Your task to perform on an android device: Show me the alarms in the clock app Image 0: 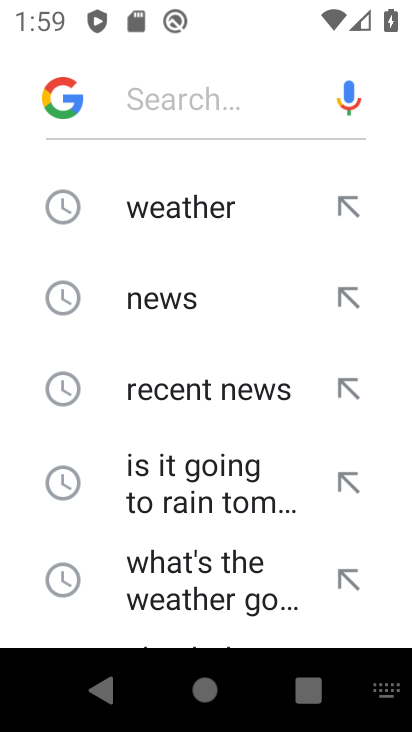
Step 0: press back button
Your task to perform on an android device: Show me the alarms in the clock app Image 1: 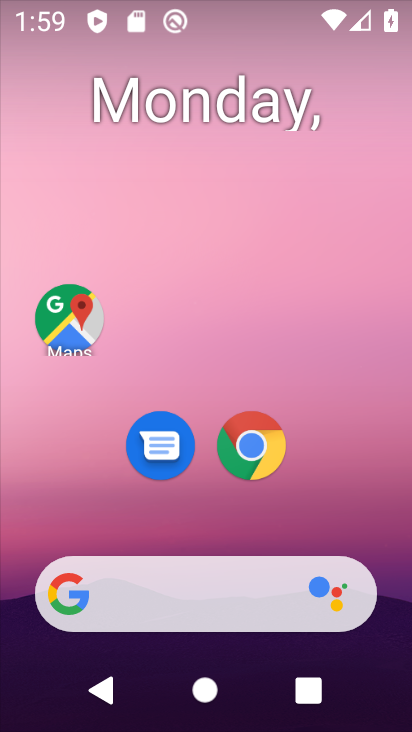
Step 1: drag from (373, 545) to (269, 0)
Your task to perform on an android device: Show me the alarms in the clock app Image 2: 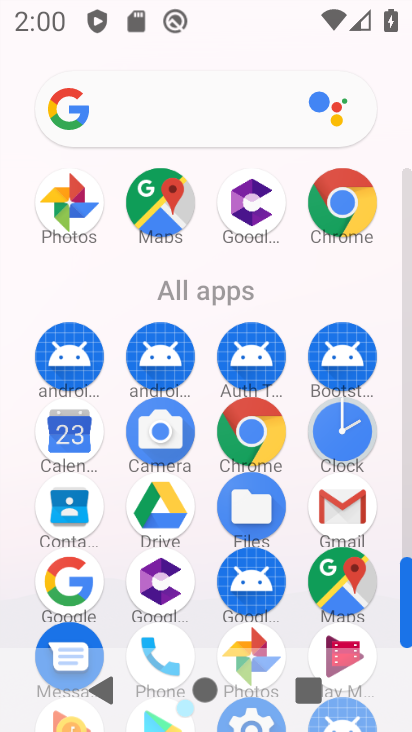
Step 2: click (338, 425)
Your task to perform on an android device: Show me the alarms in the clock app Image 3: 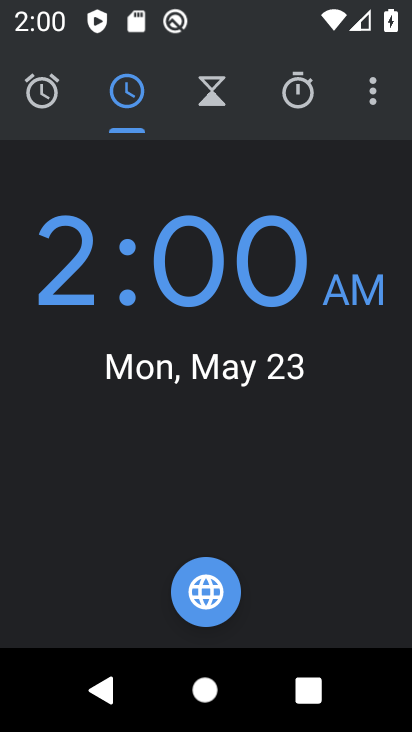
Step 3: click (61, 79)
Your task to perform on an android device: Show me the alarms in the clock app Image 4: 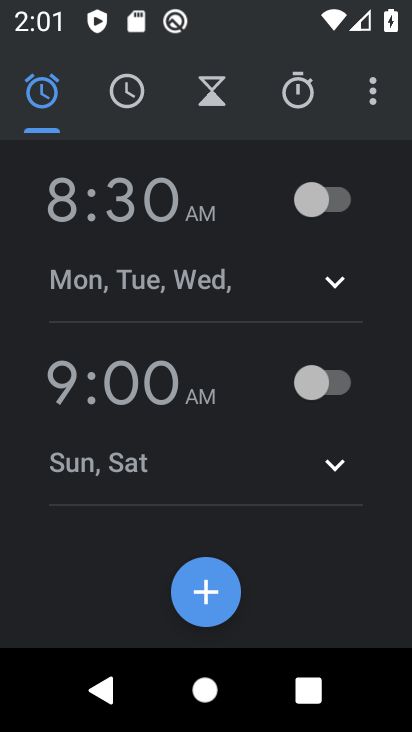
Step 4: task complete